Your task to perform on an android device: Open CNN.com Image 0: 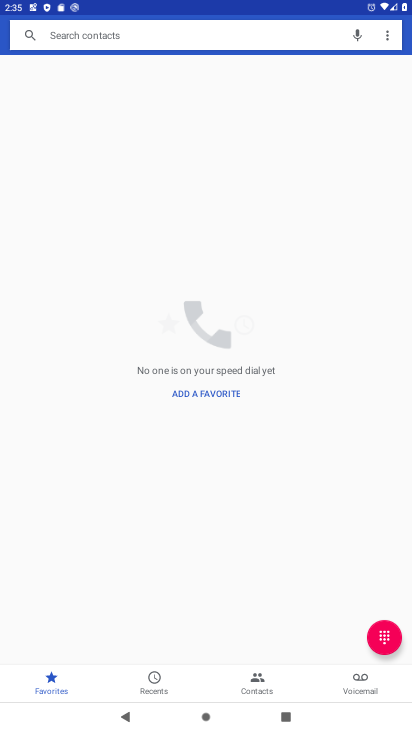
Step 0: press home button
Your task to perform on an android device: Open CNN.com Image 1: 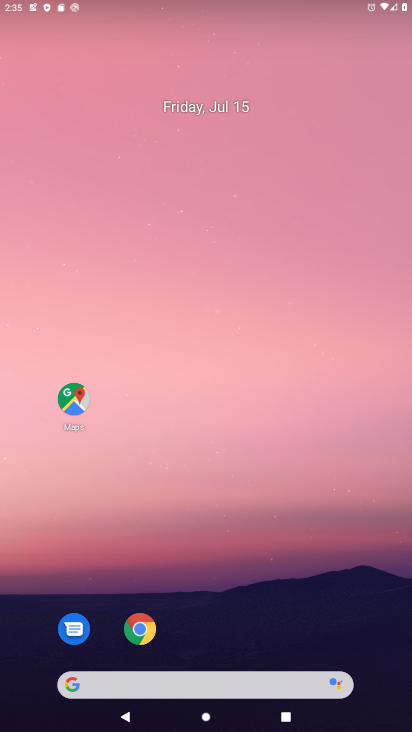
Step 1: drag from (270, 611) to (286, 25)
Your task to perform on an android device: Open CNN.com Image 2: 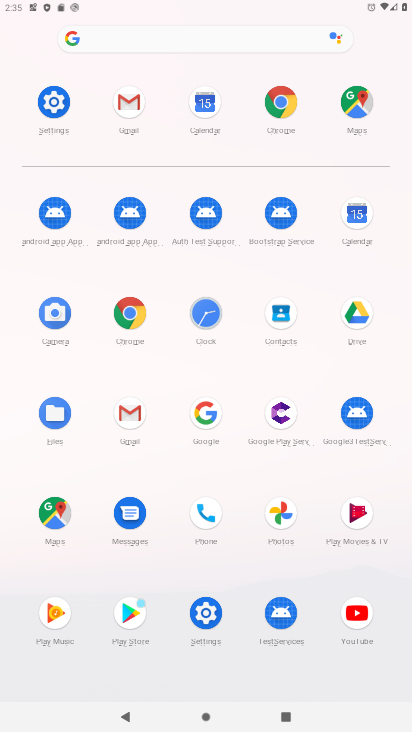
Step 2: click (208, 408)
Your task to perform on an android device: Open CNN.com Image 3: 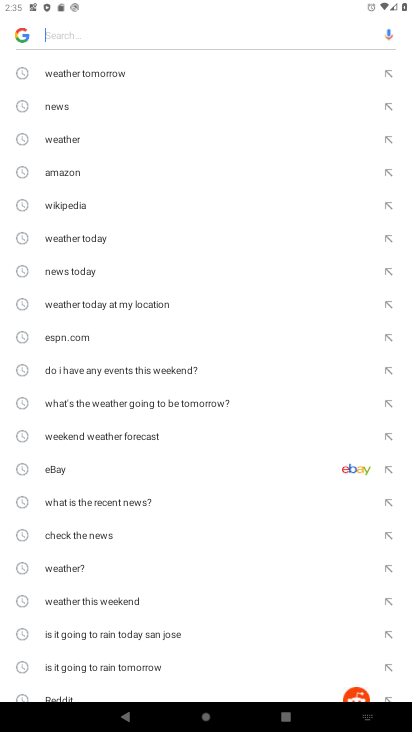
Step 3: click (278, 27)
Your task to perform on an android device: Open CNN.com Image 4: 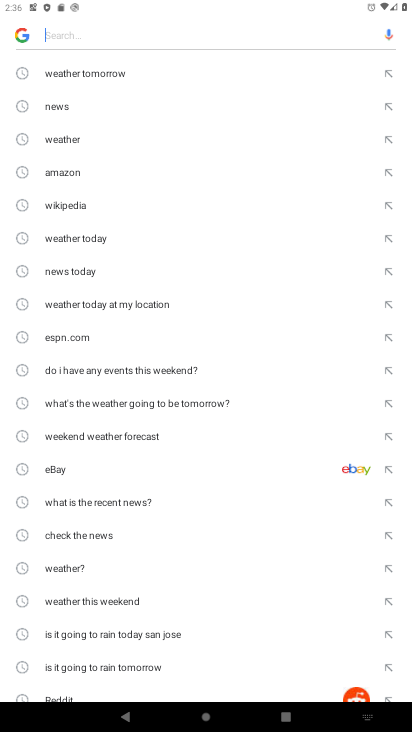
Step 4: type "cnn.com"
Your task to perform on an android device: Open CNN.com Image 5: 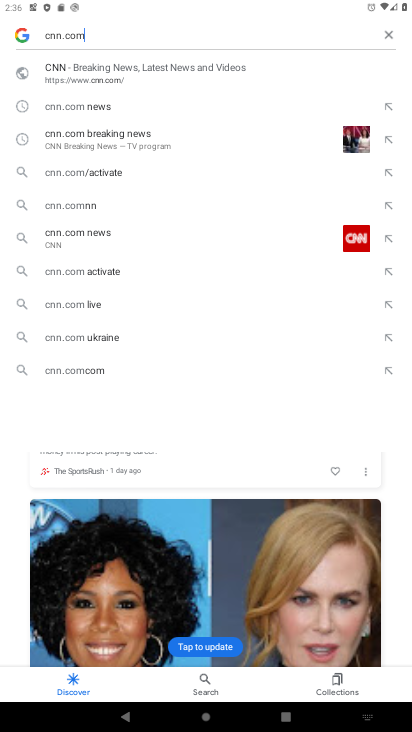
Step 5: click (88, 68)
Your task to perform on an android device: Open CNN.com Image 6: 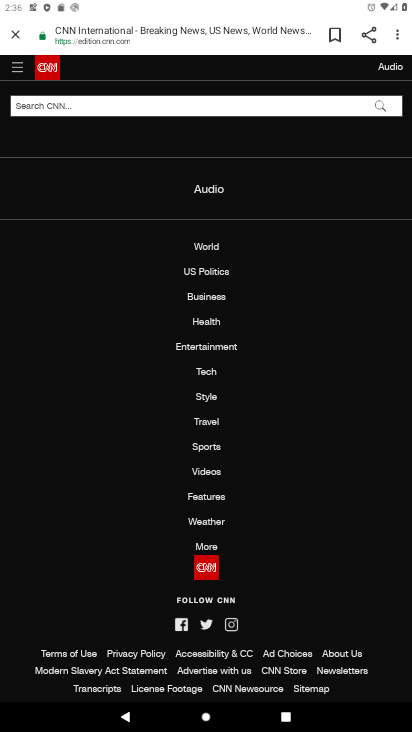
Step 6: task complete